Your task to perform on an android device: visit the assistant section in the google photos Image 0: 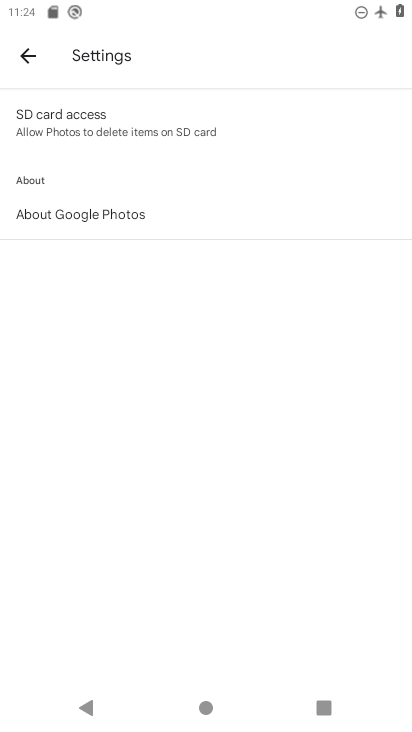
Step 0: press back button
Your task to perform on an android device: visit the assistant section in the google photos Image 1: 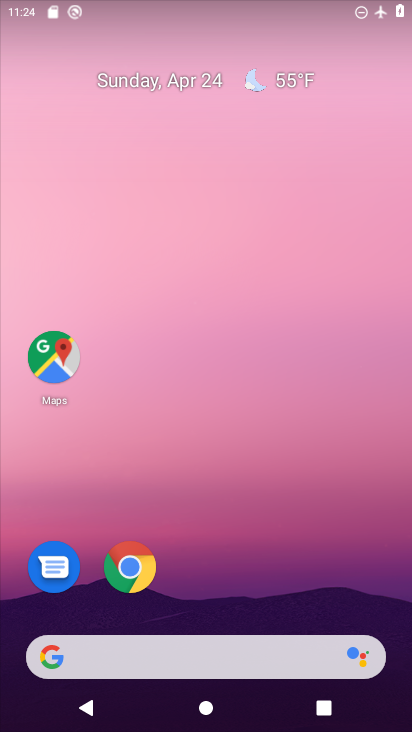
Step 1: drag from (361, 384) to (345, 231)
Your task to perform on an android device: visit the assistant section in the google photos Image 2: 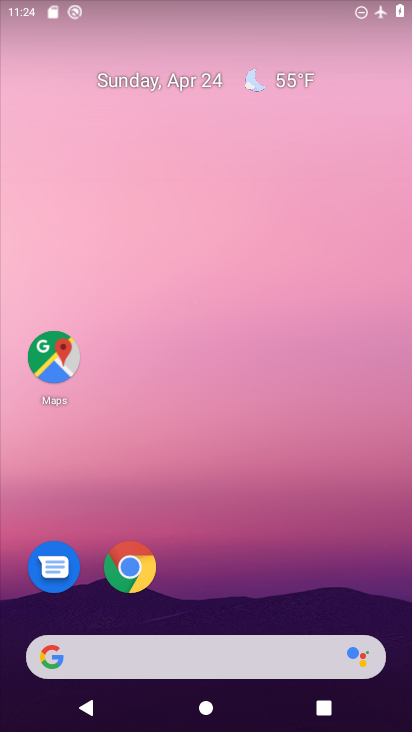
Step 2: drag from (394, 658) to (363, 179)
Your task to perform on an android device: visit the assistant section in the google photos Image 3: 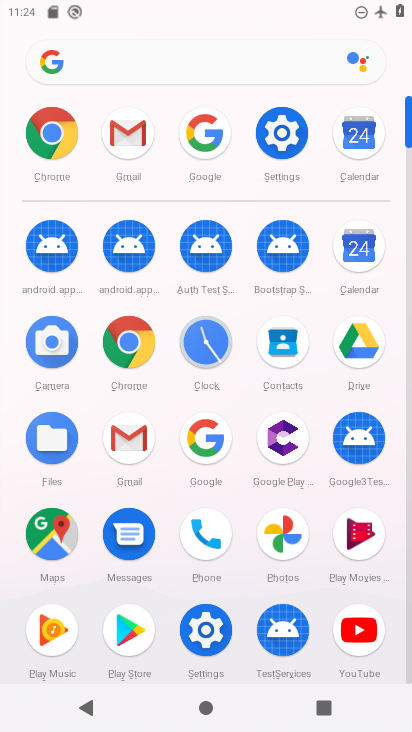
Step 3: click (278, 536)
Your task to perform on an android device: visit the assistant section in the google photos Image 4: 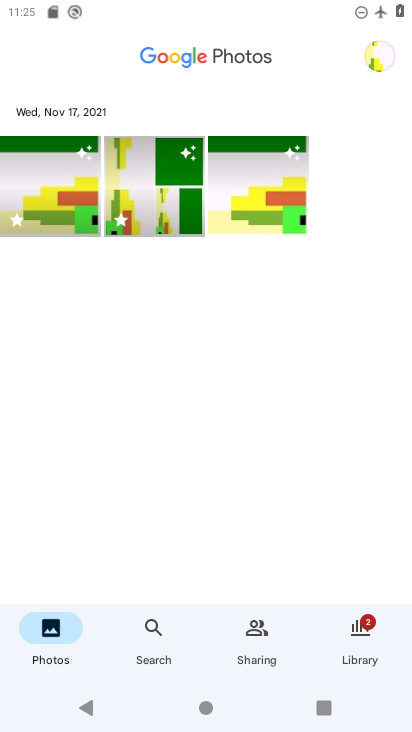
Step 4: press back button
Your task to perform on an android device: visit the assistant section in the google photos Image 5: 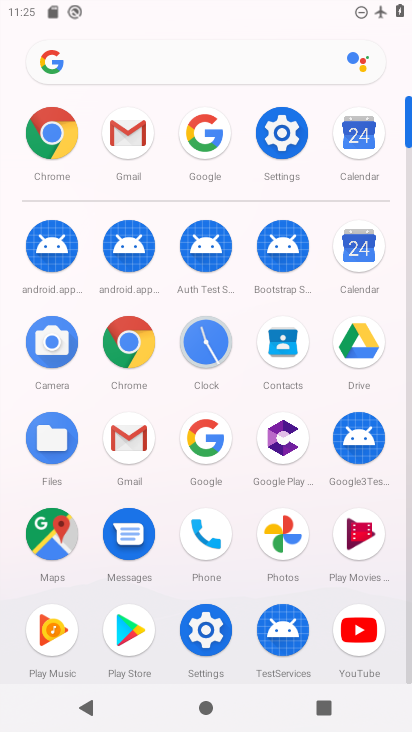
Step 5: click (281, 527)
Your task to perform on an android device: visit the assistant section in the google photos Image 6: 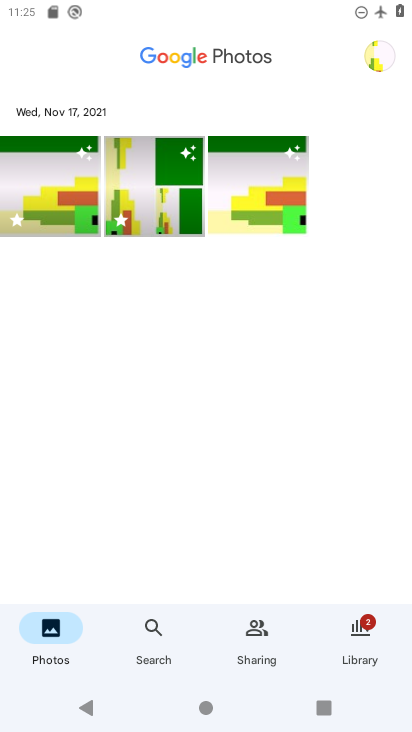
Step 6: task complete